Your task to perform on an android device: Go to ESPN.com Image 0: 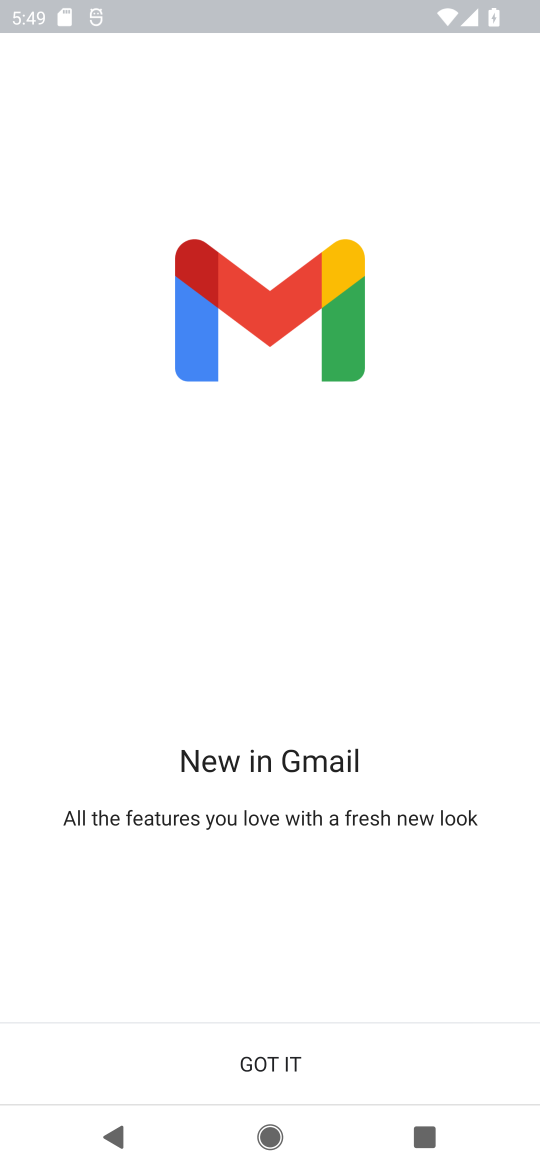
Step 0: click (254, 1046)
Your task to perform on an android device: Go to ESPN.com Image 1: 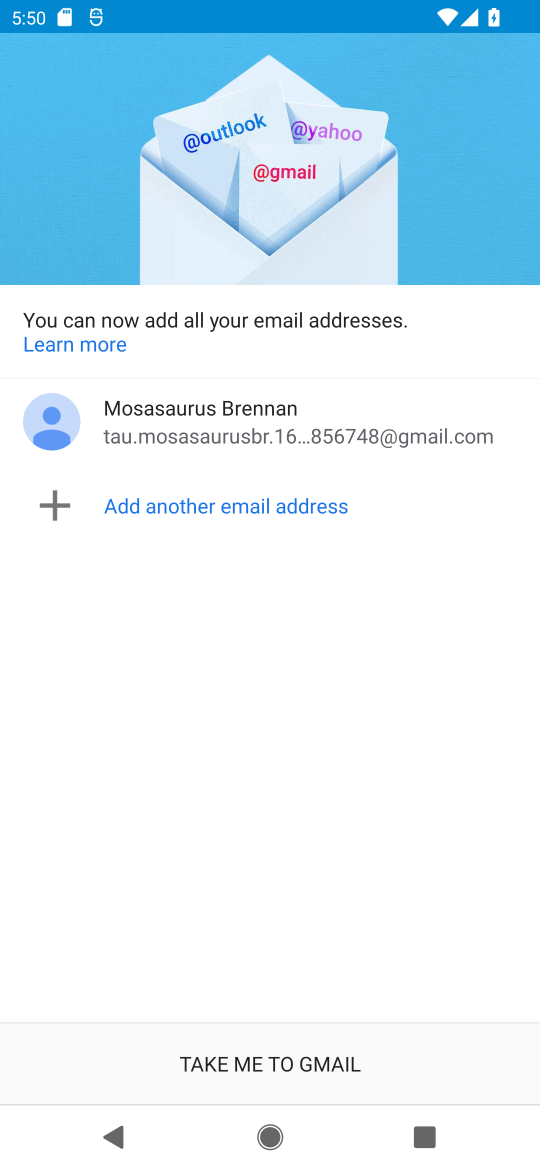
Step 1: click (256, 1061)
Your task to perform on an android device: Go to ESPN.com Image 2: 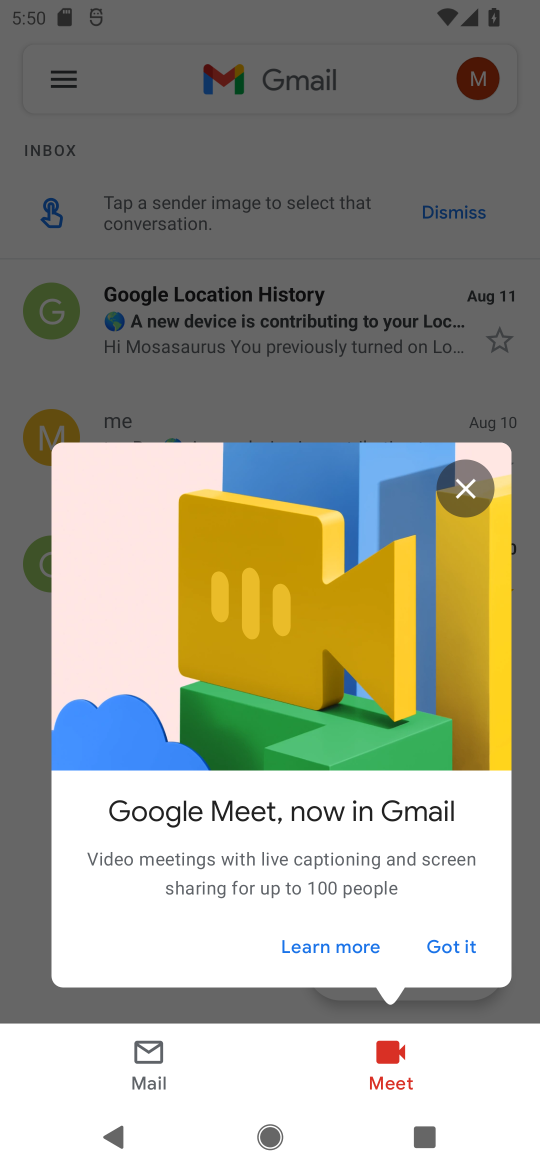
Step 2: task complete